Your task to perform on an android device: Is it going to rain tomorrow? Image 0: 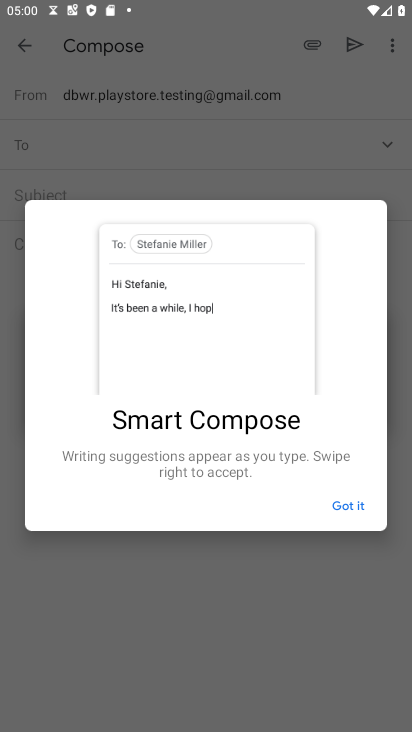
Step 0: press home button
Your task to perform on an android device: Is it going to rain tomorrow? Image 1: 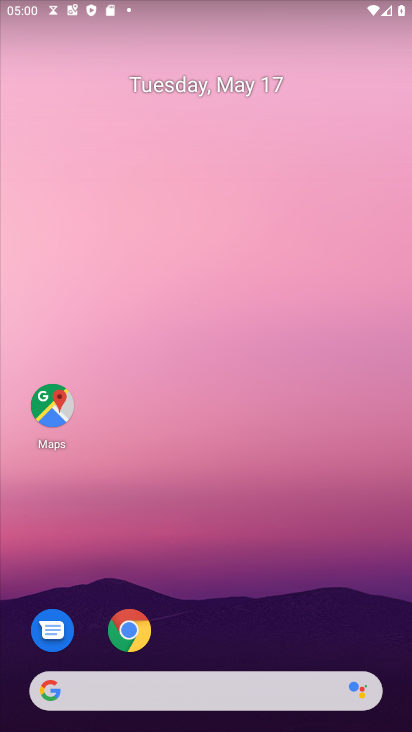
Step 1: click (130, 645)
Your task to perform on an android device: Is it going to rain tomorrow? Image 2: 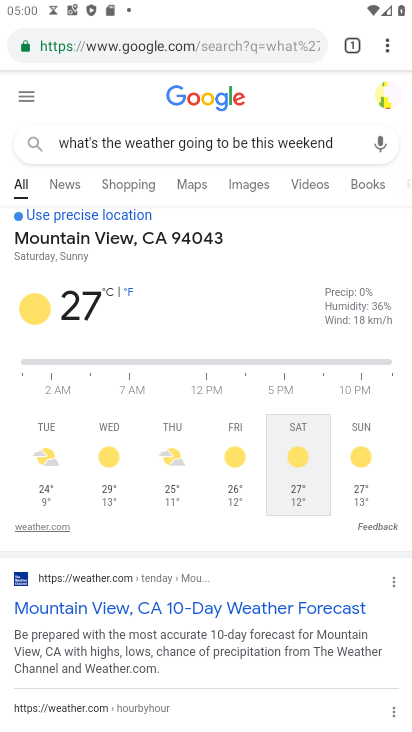
Step 2: click (120, 51)
Your task to perform on an android device: Is it going to rain tomorrow? Image 3: 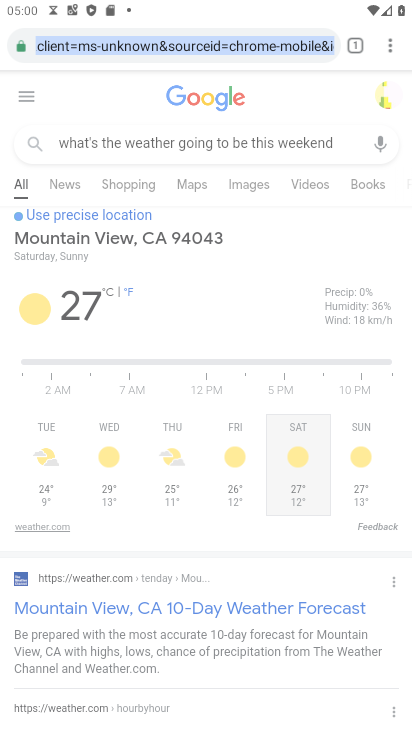
Step 3: click (120, 51)
Your task to perform on an android device: Is it going to rain tomorrow? Image 4: 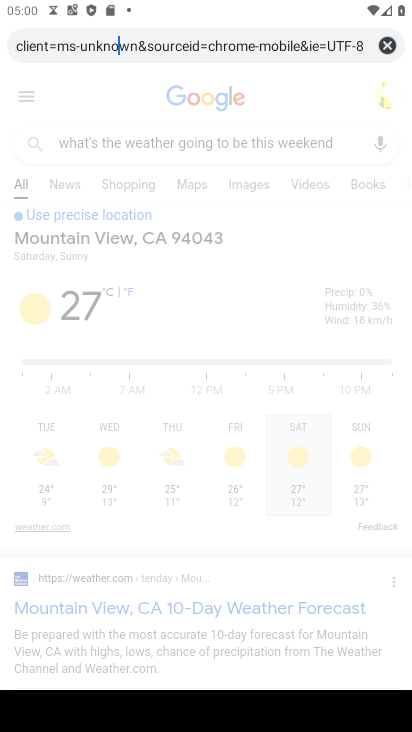
Step 4: click (393, 47)
Your task to perform on an android device: Is it going to rain tomorrow? Image 5: 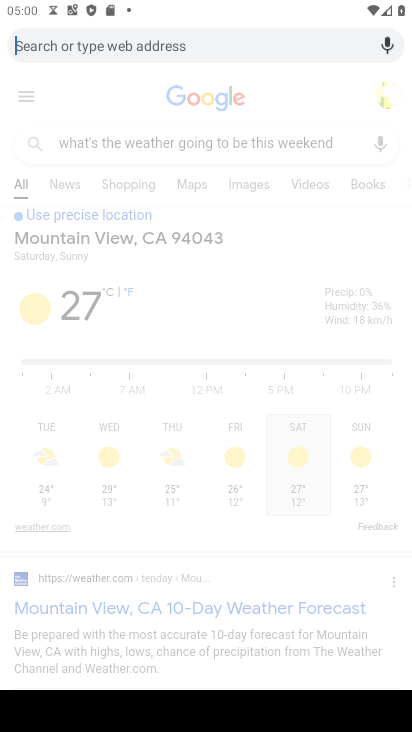
Step 5: type "Is it going to rain tomorrow?"
Your task to perform on an android device: Is it going to rain tomorrow? Image 6: 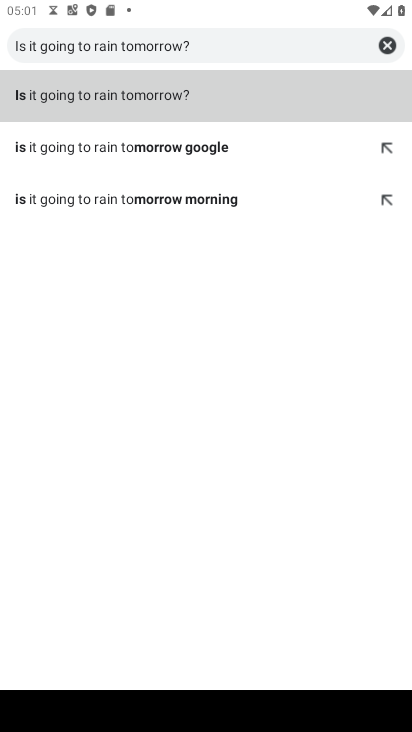
Step 6: click (99, 93)
Your task to perform on an android device: Is it going to rain tomorrow? Image 7: 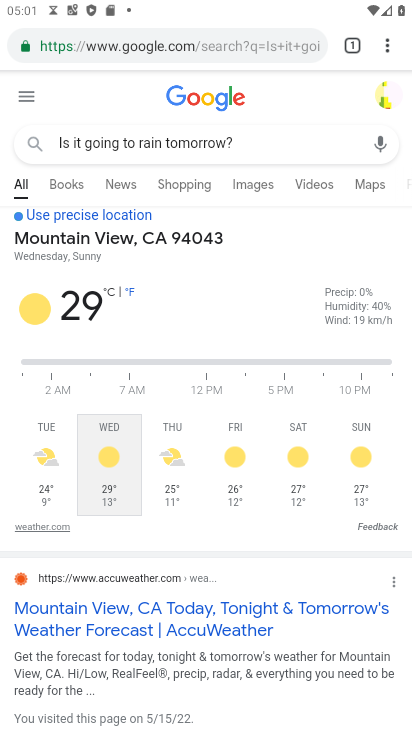
Step 7: task complete